Your task to perform on an android device: uninstall "Gmail" Image 0: 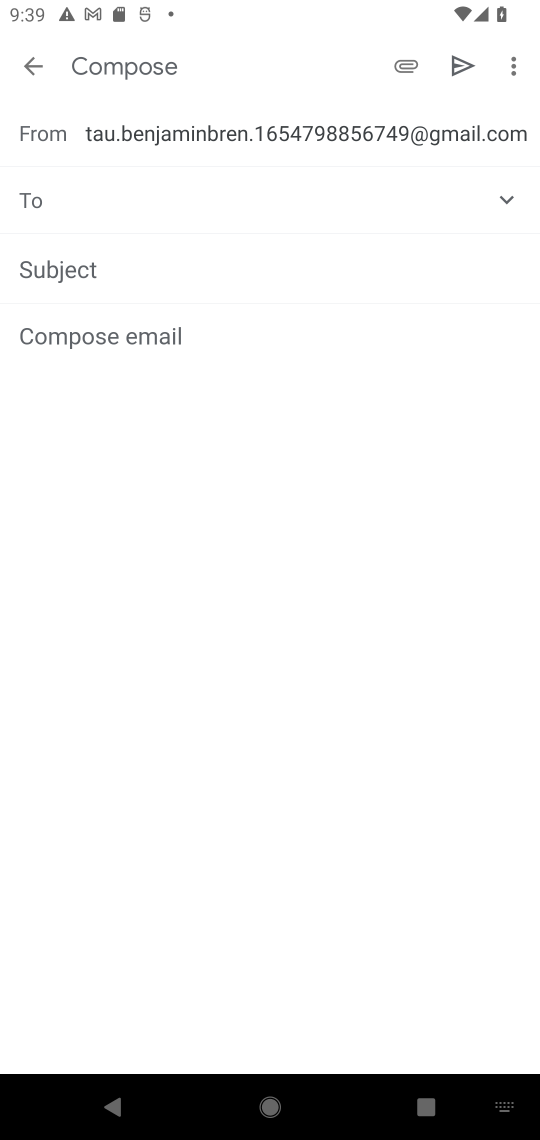
Step 0: press home button
Your task to perform on an android device: uninstall "Gmail" Image 1: 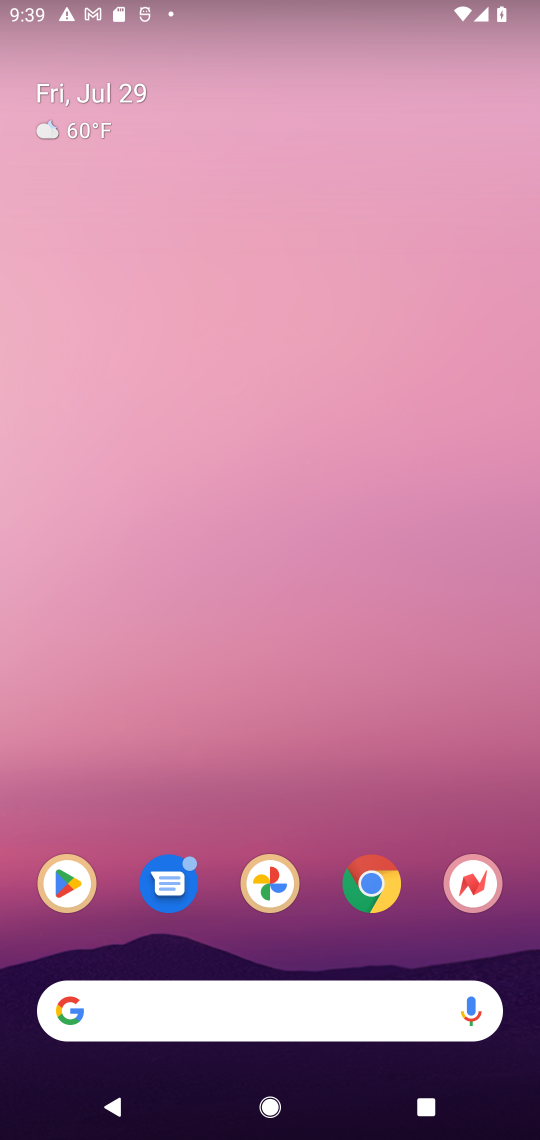
Step 1: click (59, 881)
Your task to perform on an android device: uninstall "Gmail" Image 2: 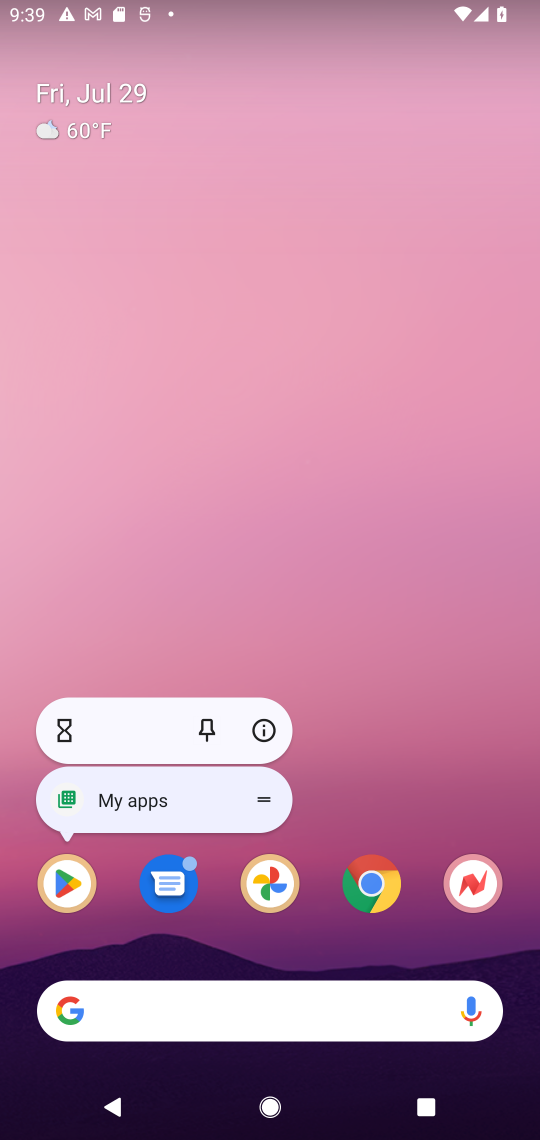
Step 2: click (62, 881)
Your task to perform on an android device: uninstall "Gmail" Image 3: 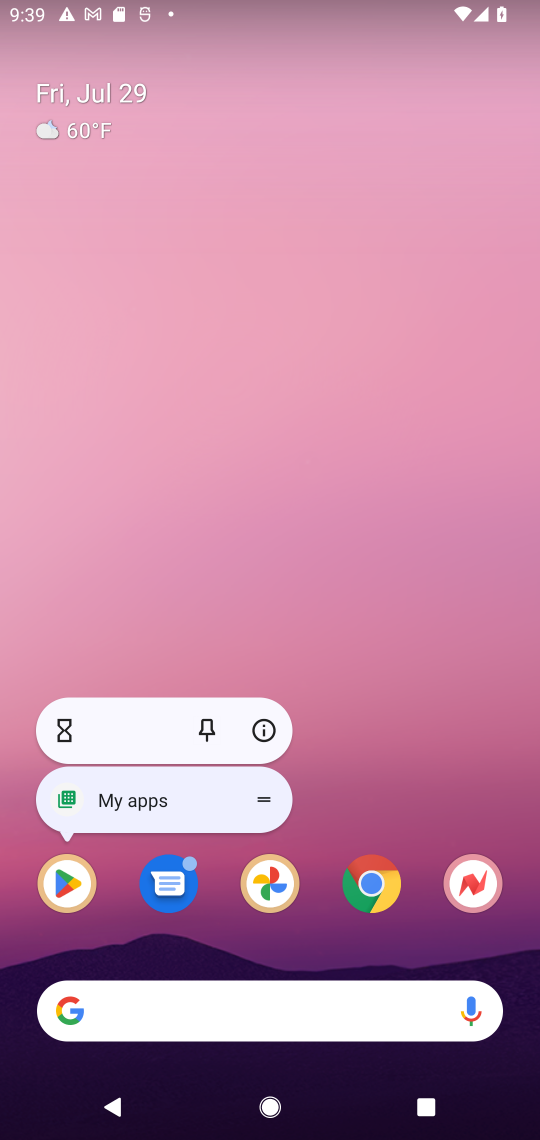
Step 3: click (76, 869)
Your task to perform on an android device: uninstall "Gmail" Image 4: 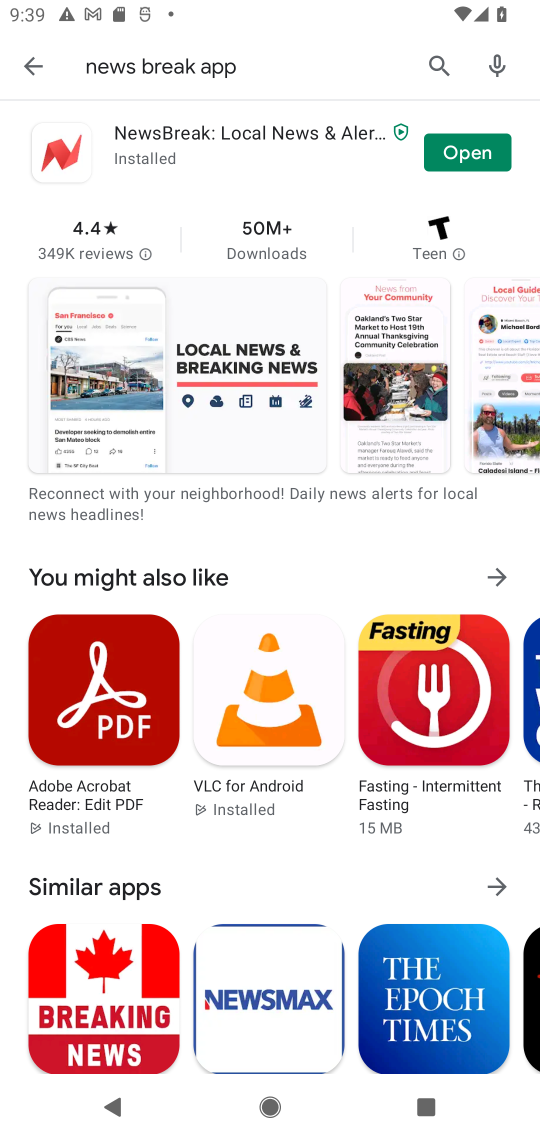
Step 4: click (238, 75)
Your task to perform on an android device: uninstall "Gmail" Image 5: 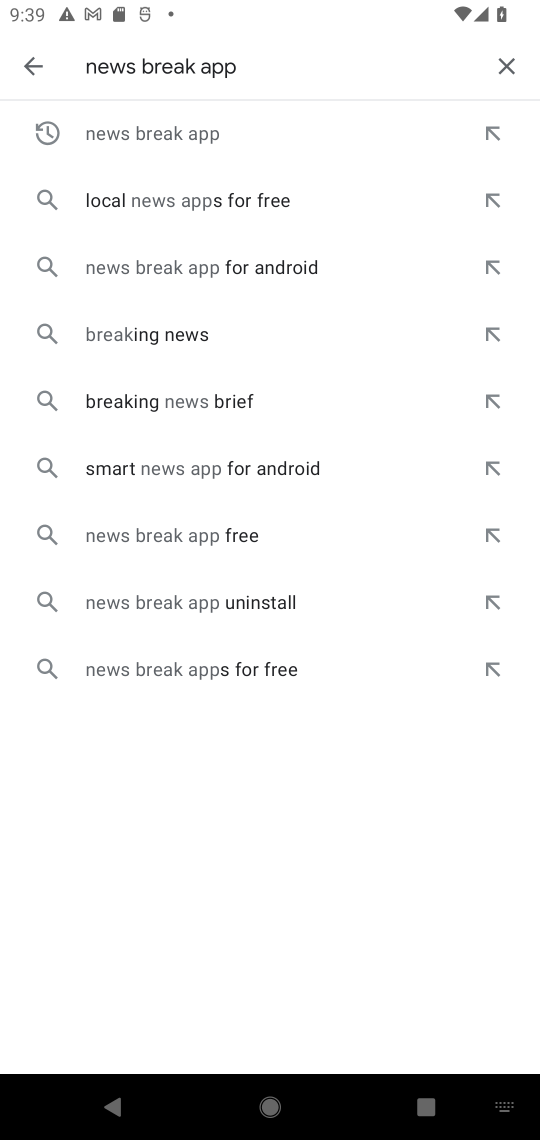
Step 5: click (499, 67)
Your task to perform on an android device: uninstall "Gmail" Image 6: 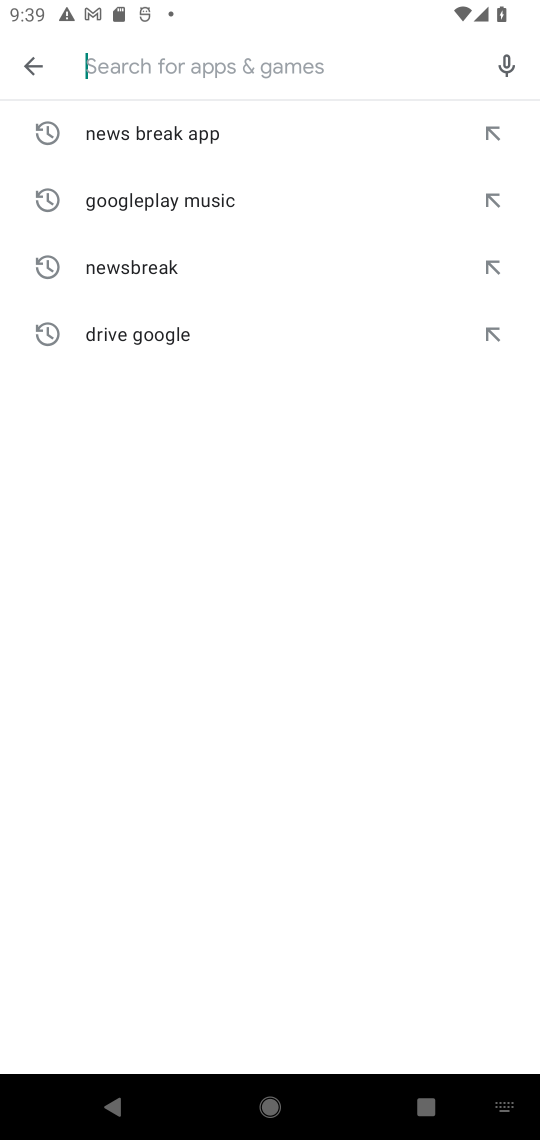
Step 6: type "gmail"
Your task to perform on an android device: uninstall "Gmail" Image 7: 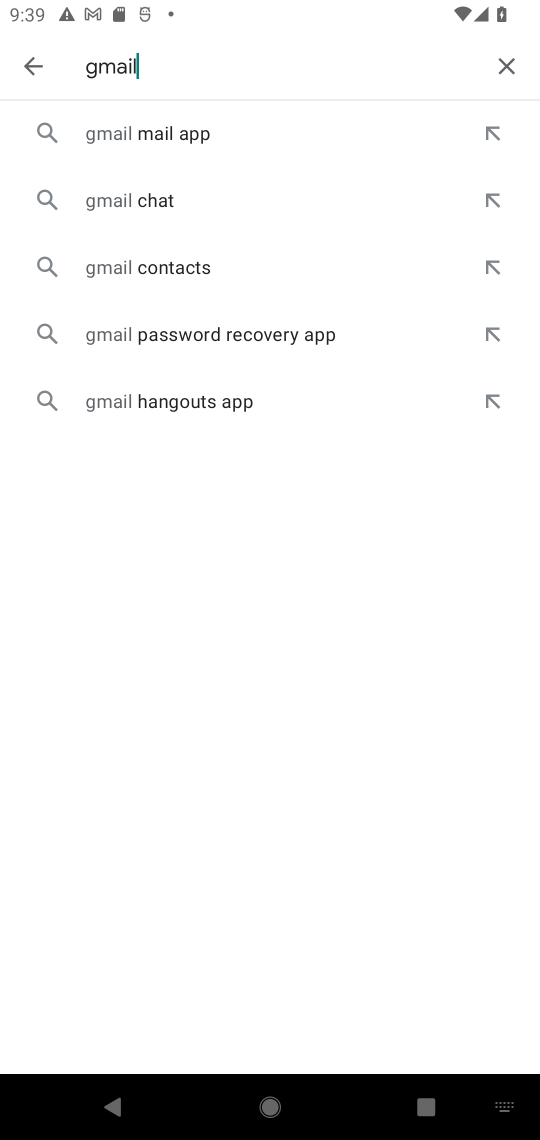
Step 7: click (123, 134)
Your task to perform on an android device: uninstall "Gmail" Image 8: 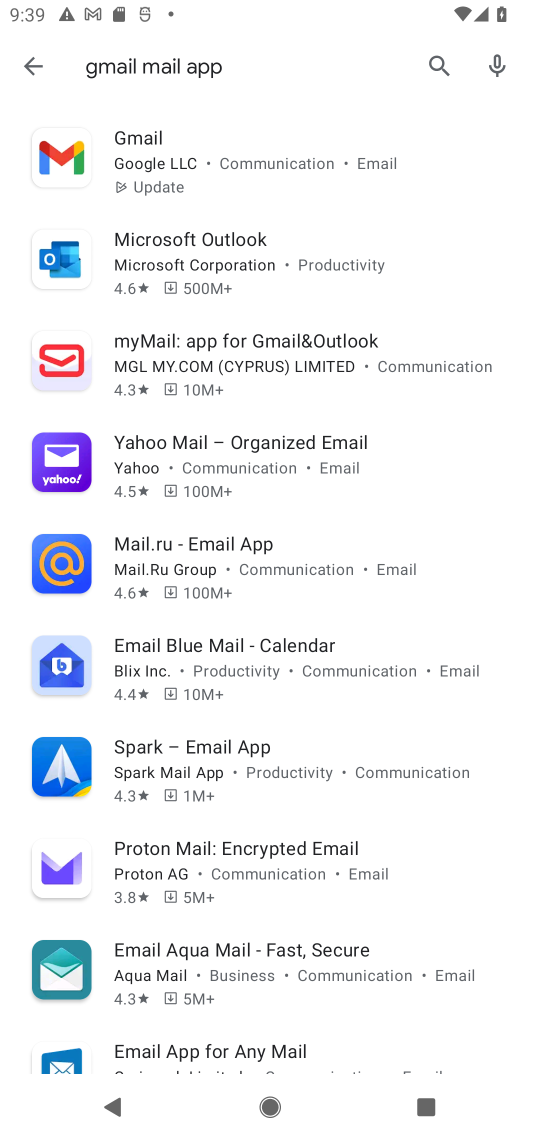
Step 8: click (189, 162)
Your task to perform on an android device: uninstall "Gmail" Image 9: 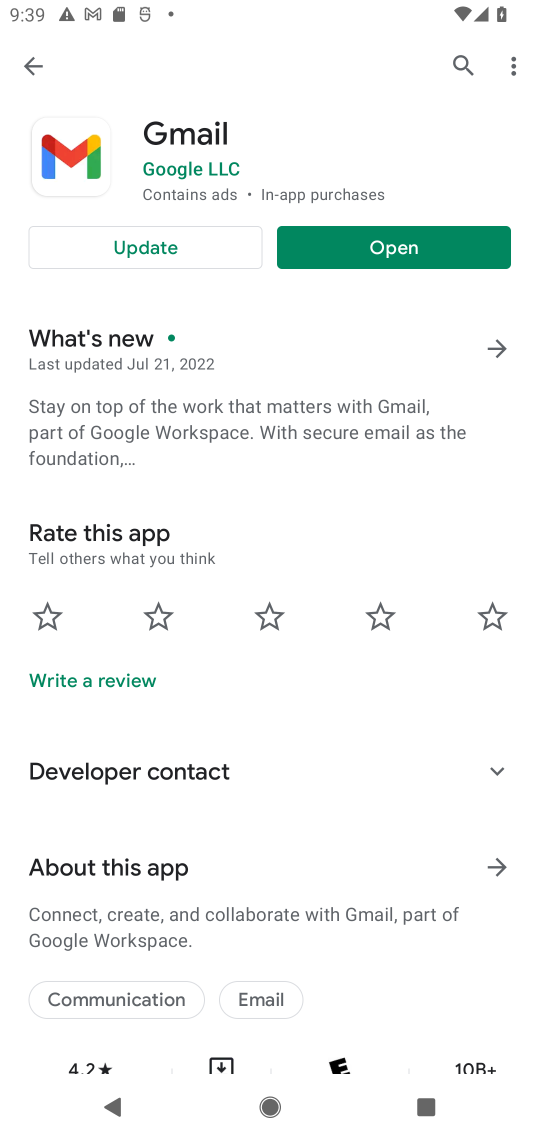
Step 9: task complete